Your task to perform on an android device: View the shopping cart on newegg.com. Add "panasonic triple a" to the cart on newegg.com Image 0: 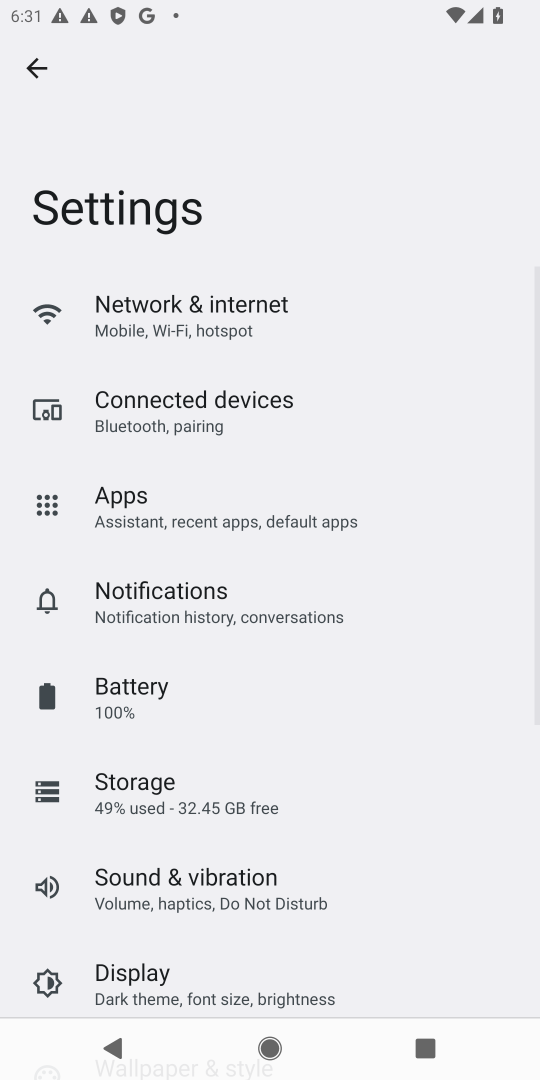
Step 0: press home button
Your task to perform on an android device: View the shopping cart on newegg.com. Add "panasonic triple a" to the cart on newegg.com Image 1: 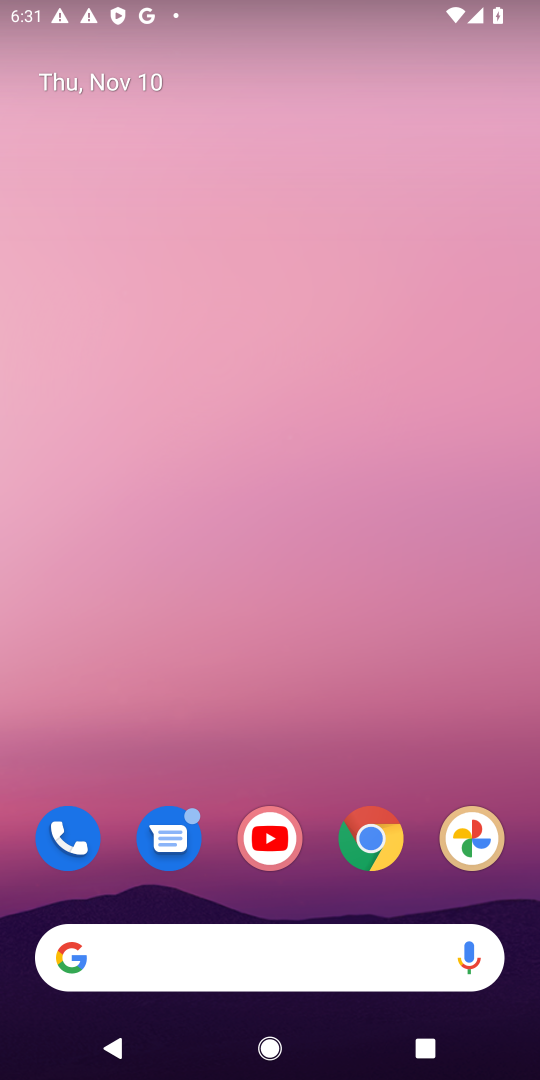
Step 1: drag from (314, 909) to (315, 59)
Your task to perform on an android device: View the shopping cart on newegg.com. Add "panasonic triple a" to the cart on newegg.com Image 2: 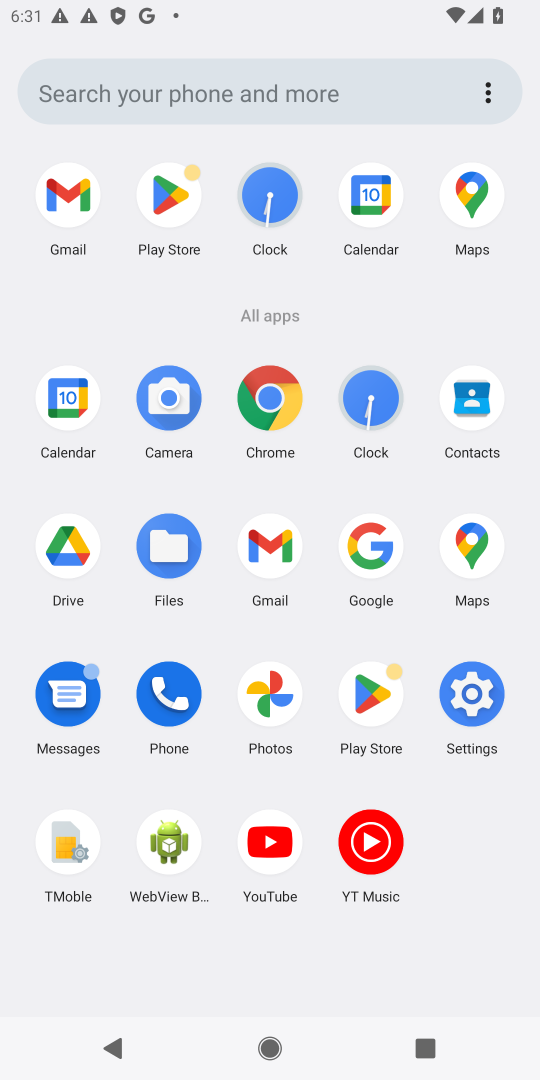
Step 2: click (278, 398)
Your task to perform on an android device: View the shopping cart on newegg.com. Add "panasonic triple a" to the cart on newegg.com Image 3: 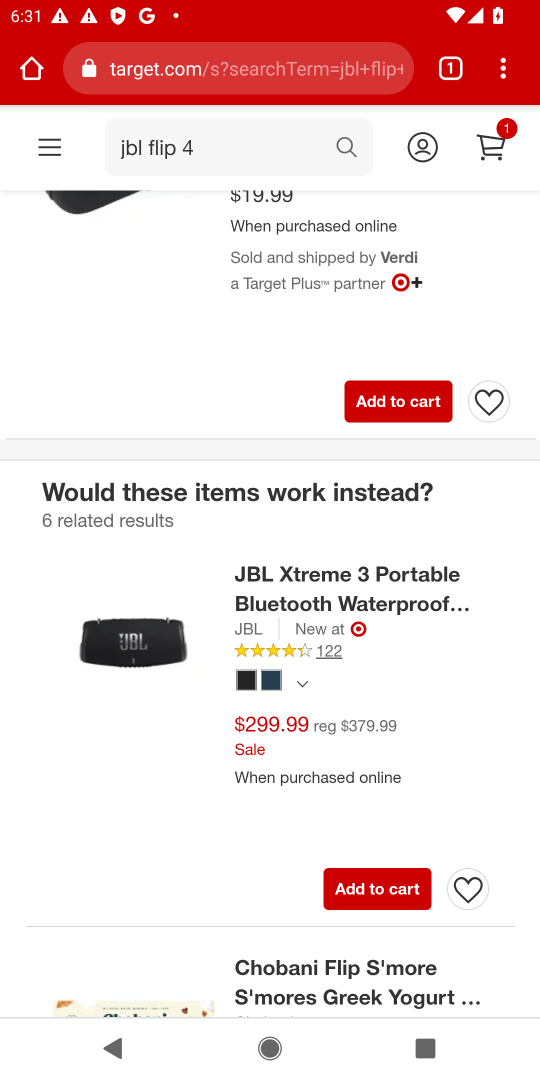
Step 3: click (302, 77)
Your task to perform on an android device: View the shopping cart on newegg.com. Add "panasonic triple a" to the cart on newegg.com Image 4: 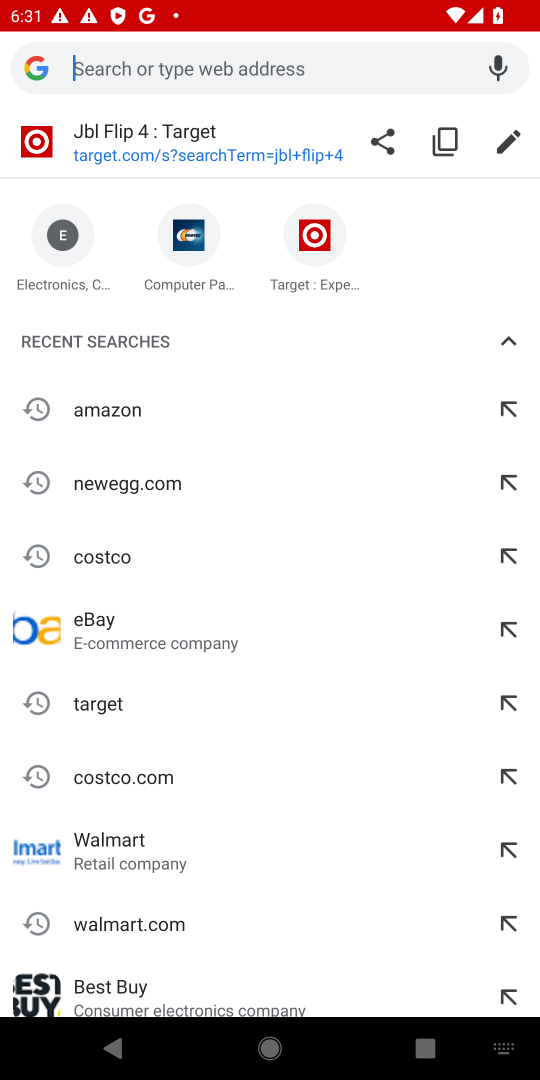
Step 4: type "newegg.com"
Your task to perform on an android device: View the shopping cart on newegg.com. Add "panasonic triple a" to the cart on newegg.com Image 5: 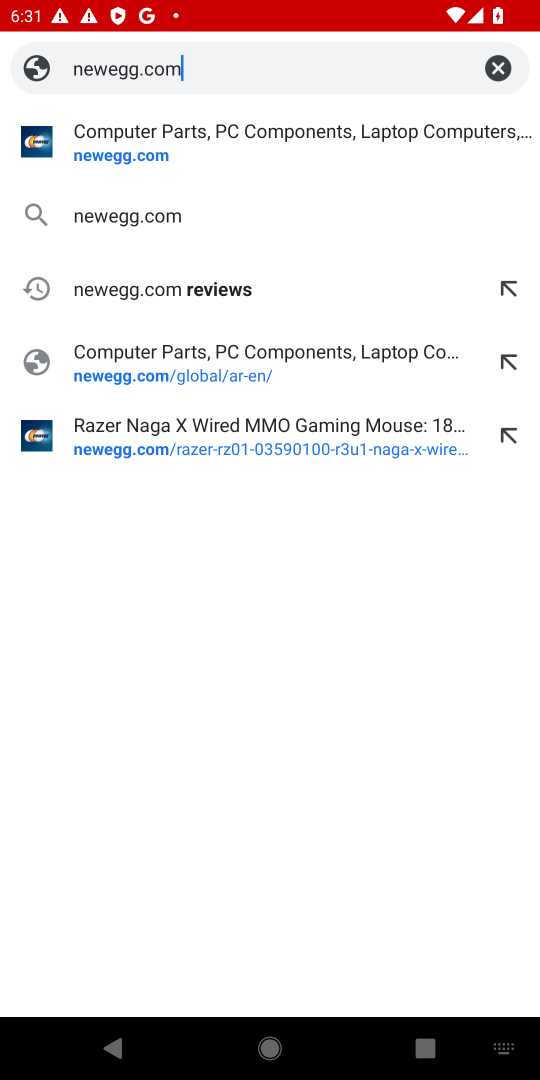
Step 5: press enter
Your task to perform on an android device: View the shopping cart on newegg.com. Add "panasonic triple a" to the cart on newegg.com Image 6: 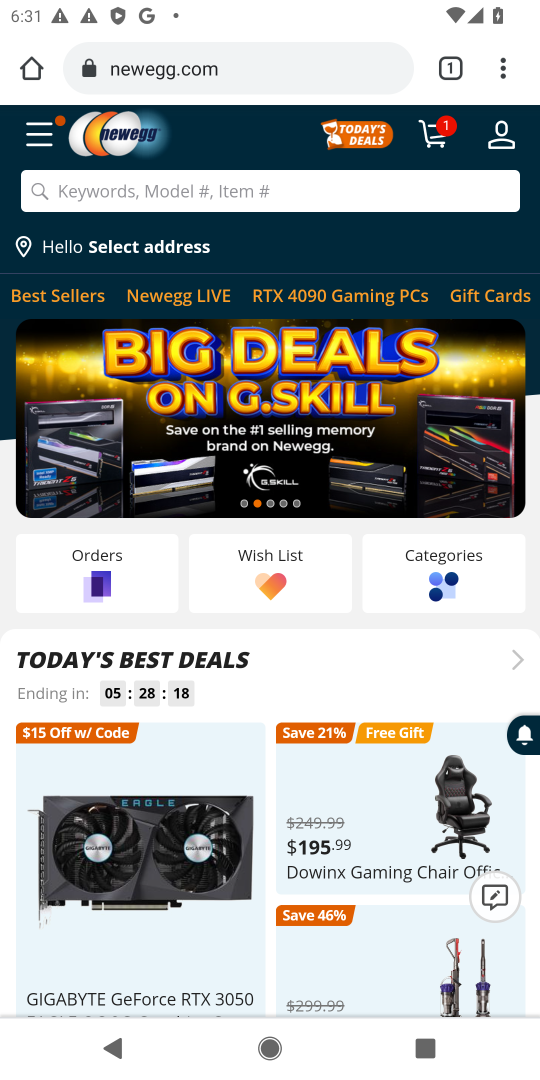
Step 6: click (451, 129)
Your task to perform on an android device: View the shopping cart on newegg.com. Add "panasonic triple a" to the cart on newegg.com Image 7: 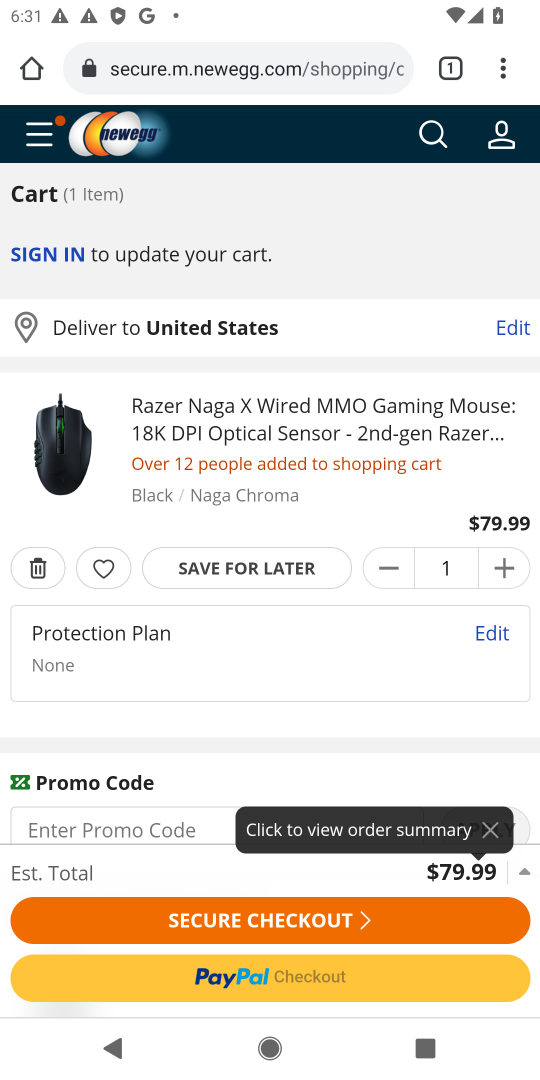
Step 7: click (455, 137)
Your task to perform on an android device: View the shopping cart on newegg.com. Add "panasonic triple a" to the cart on newegg.com Image 8: 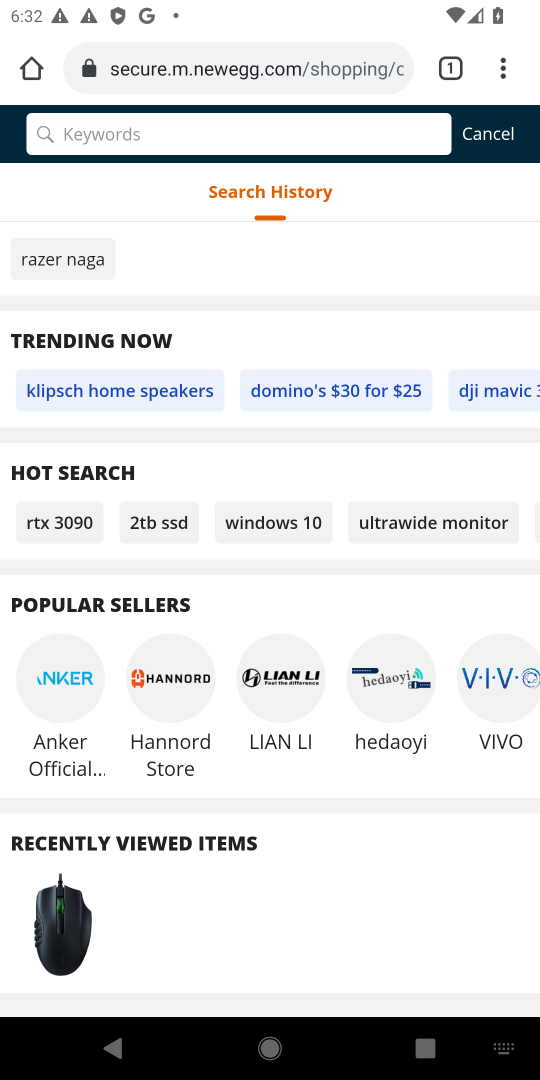
Step 8: type "panasonic triple a"
Your task to perform on an android device: View the shopping cart on newegg.com. Add "panasonic triple a" to the cart on newegg.com Image 9: 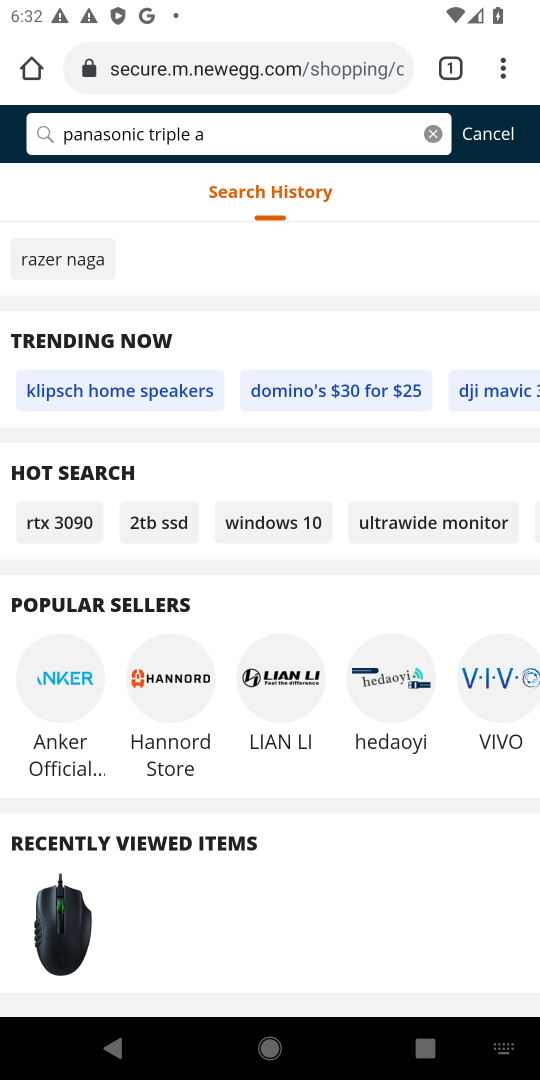
Step 9: press enter
Your task to perform on an android device: View the shopping cart on newegg.com. Add "panasonic triple a" to the cart on newegg.com Image 10: 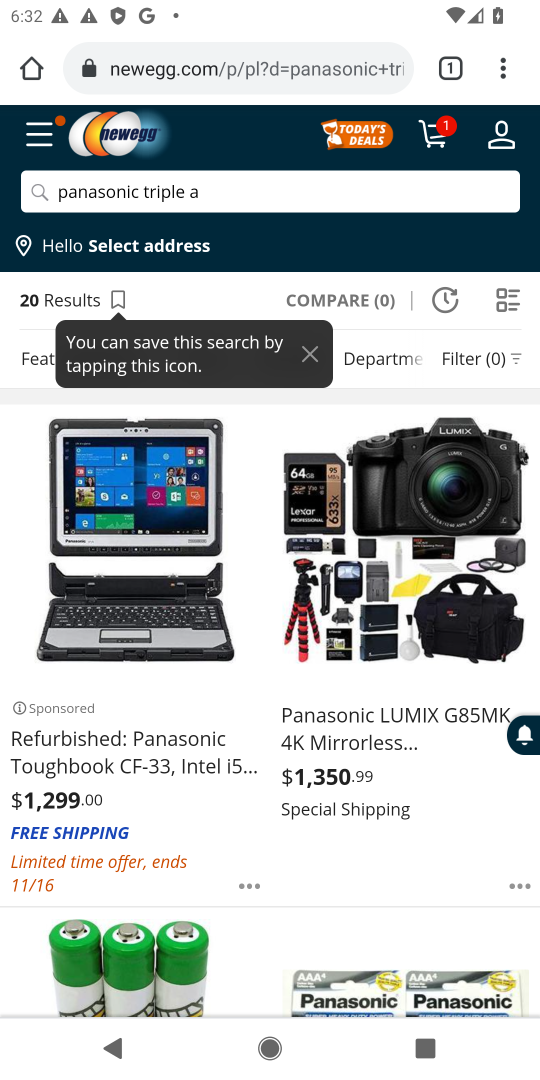
Step 10: drag from (258, 902) to (233, 496)
Your task to perform on an android device: View the shopping cart on newegg.com. Add "panasonic triple a" to the cart on newegg.com Image 11: 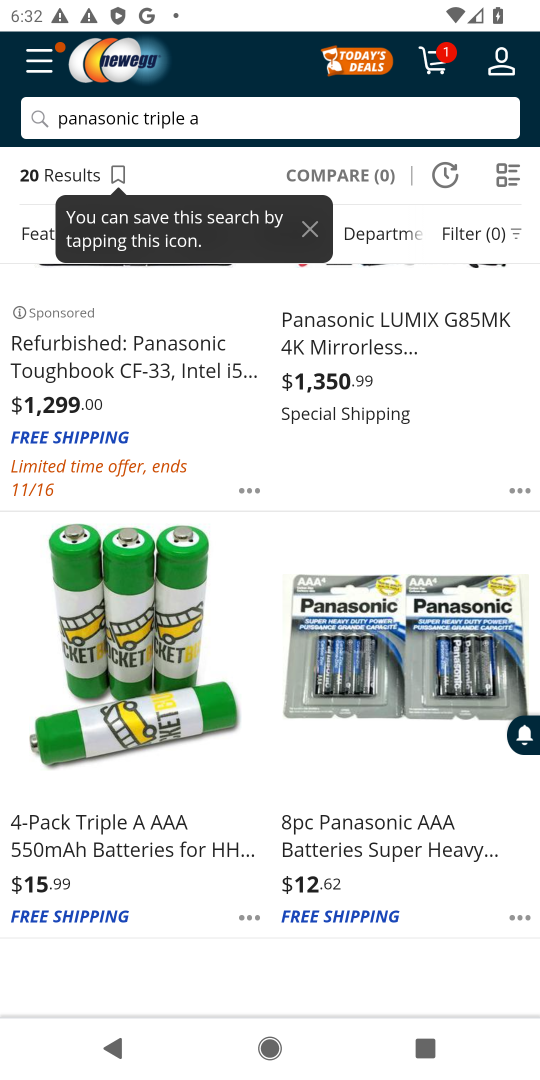
Step 11: click (411, 650)
Your task to perform on an android device: View the shopping cart on newegg.com. Add "panasonic triple a" to the cart on newegg.com Image 12: 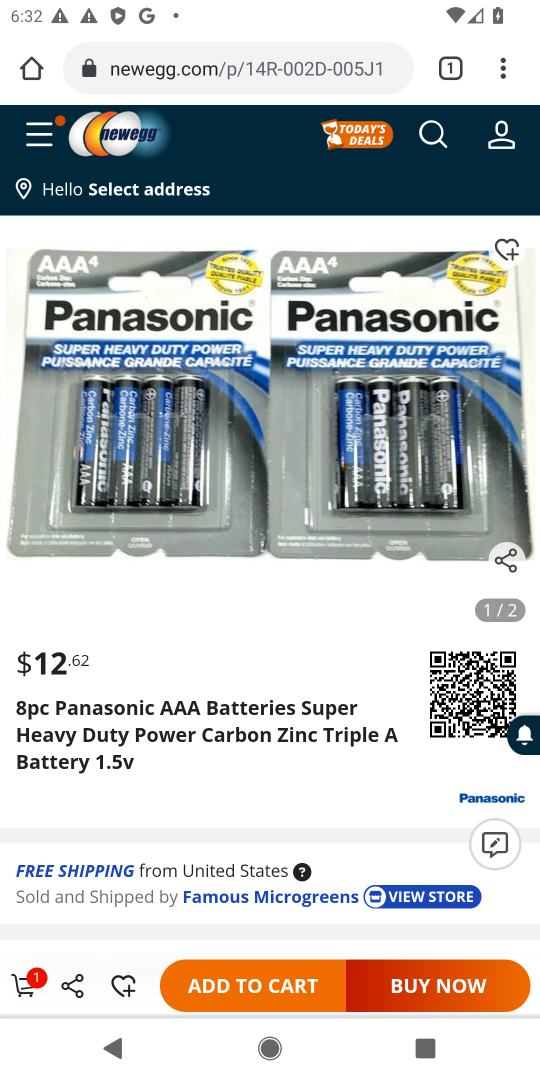
Step 12: click (245, 993)
Your task to perform on an android device: View the shopping cart on newegg.com. Add "panasonic triple a" to the cart on newegg.com Image 13: 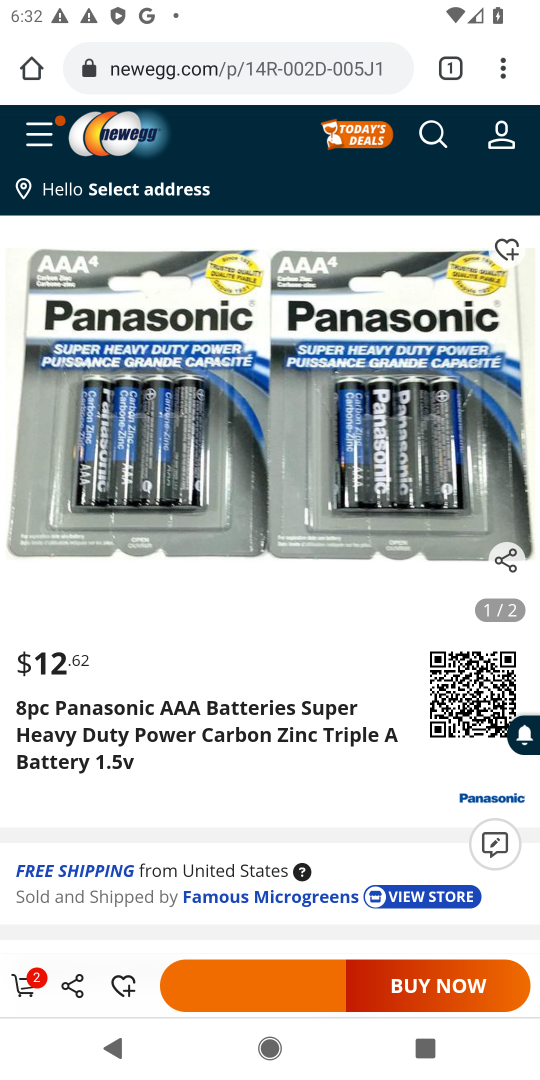
Step 13: task complete